Your task to perform on an android device: Open display settings Image 0: 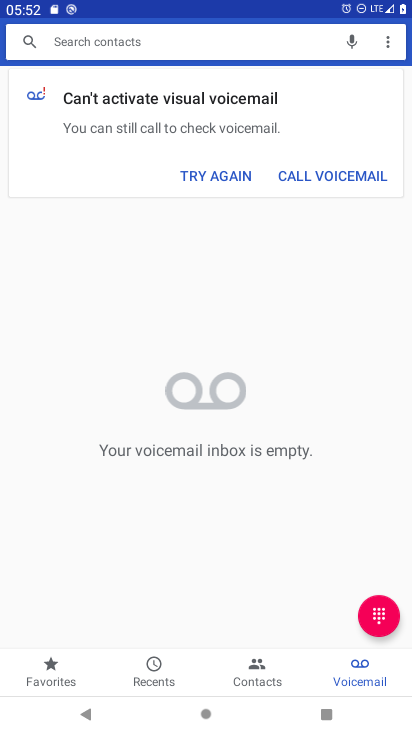
Step 0: press home button
Your task to perform on an android device: Open display settings Image 1: 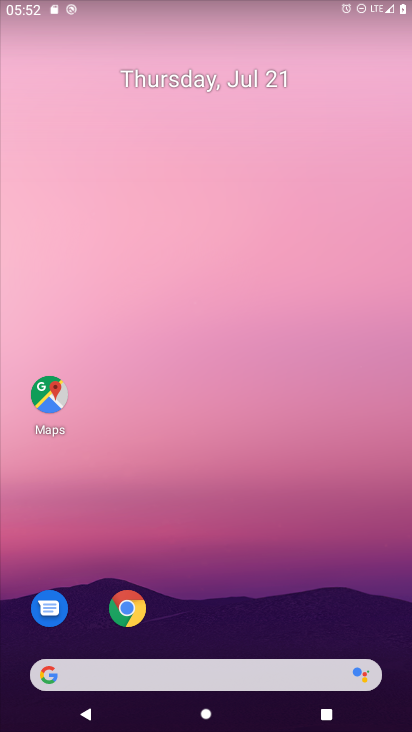
Step 1: drag from (248, 670) to (298, 0)
Your task to perform on an android device: Open display settings Image 2: 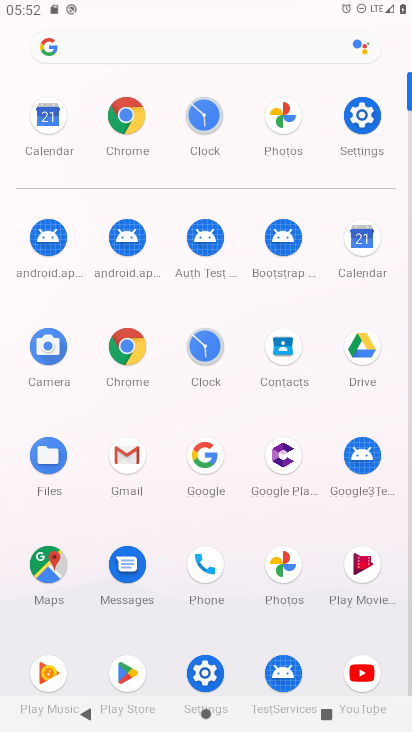
Step 2: click (361, 112)
Your task to perform on an android device: Open display settings Image 3: 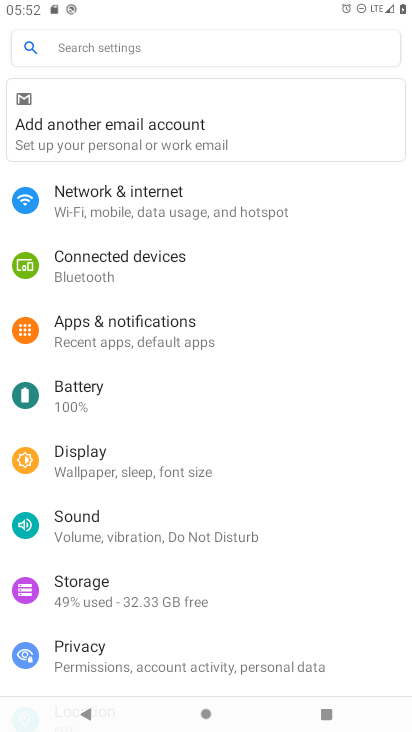
Step 3: click (102, 467)
Your task to perform on an android device: Open display settings Image 4: 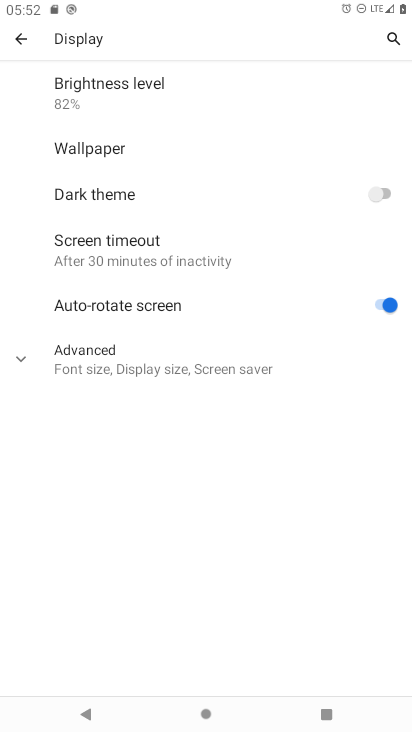
Step 4: task complete